Your task to perform on an android device: Open Reddit.com Image 0: 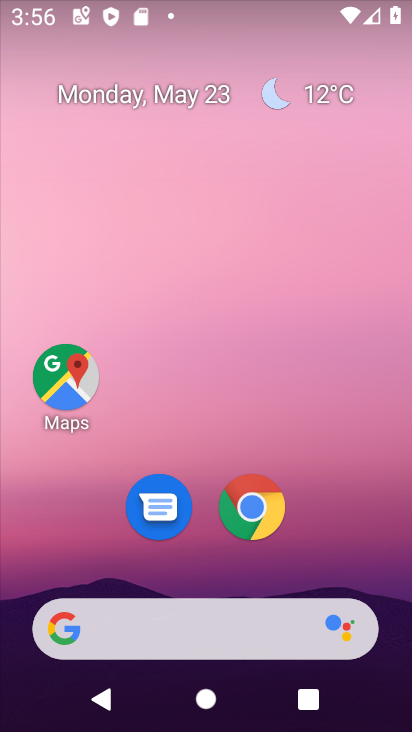
Step 0: click (134, 627)
Your task to perform on an android device: Open Reddit.com Image 1: 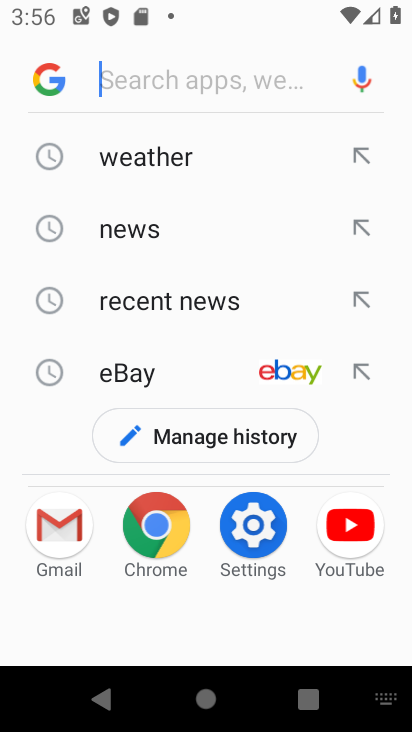
Step 1: type "reddit.com"
Your task to perform on an android device: Open Reddit.com Image 2: 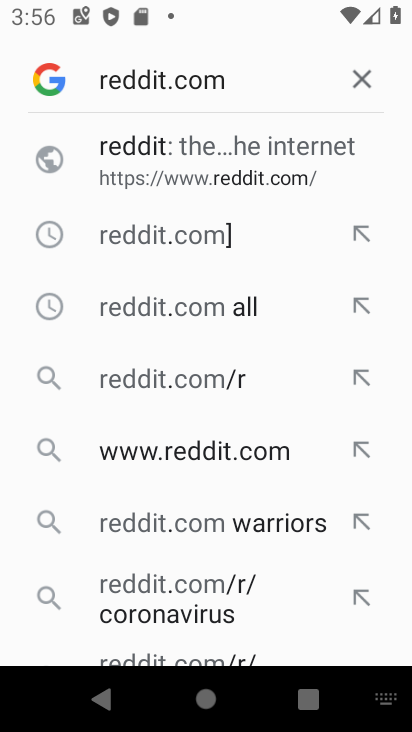
Step 2: click (257, 161)
Your task to perform on an android device: Open Reddit.com Image 3: 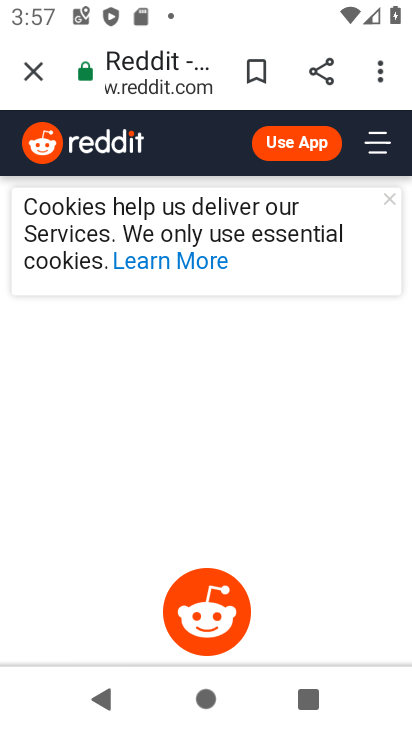
Step 3: task complete